Your task to perform on an android device: Show me productivity apps on the Play Store Image 0: 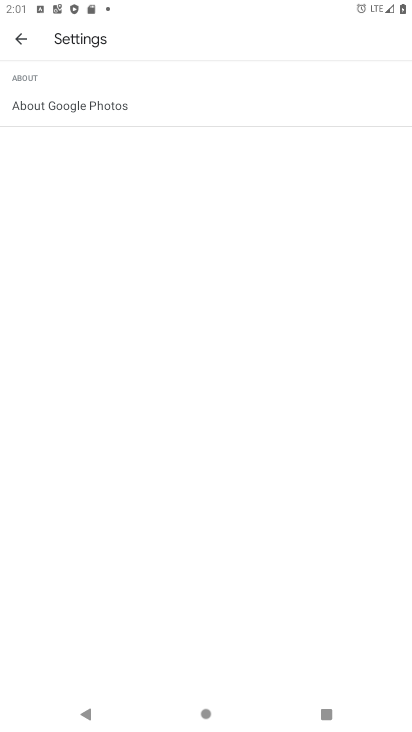
Step 0: press home button
Your task to perform on an android device: Show me productivity apps on the Play Store Image 1: 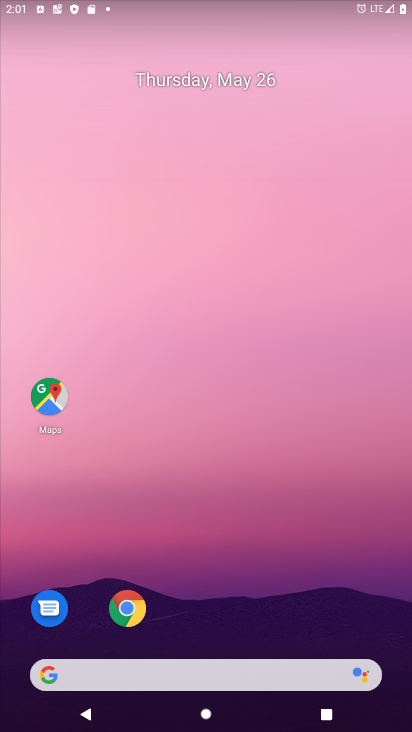
Step 1: drag from (357, 618) to (302, 113)
Your task to perform on an android device: Show me productivity apps on the Play Store Image 2: 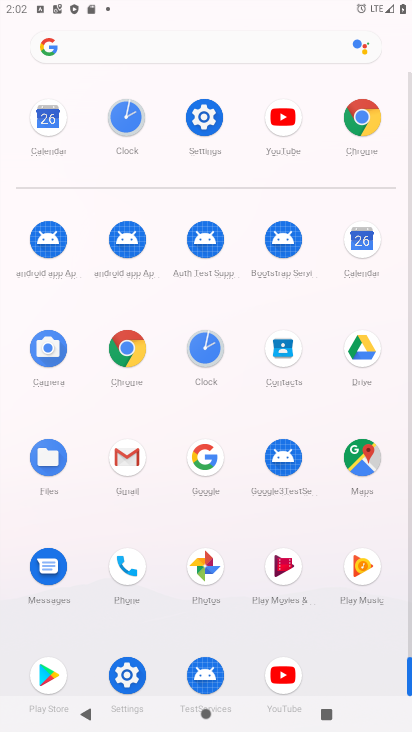
Step 2: click (47, 675)
Your task to perform on an android device: Show me productivity apps on the Play Store Image 3: 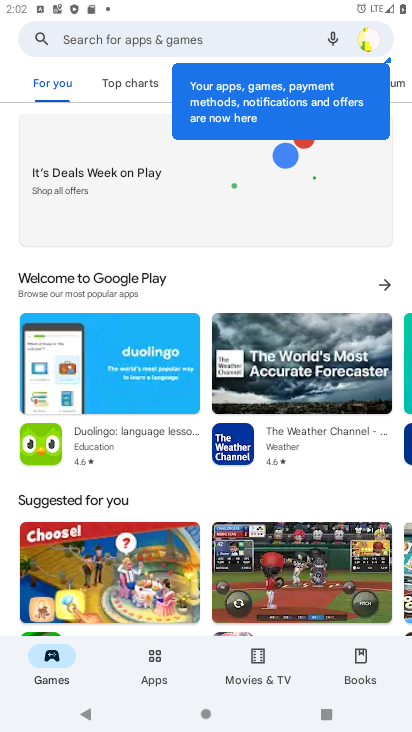
Step 3: click (154, 664)
Your task to perform on an android device: Show me productivity apps on the Play Store Image 4: 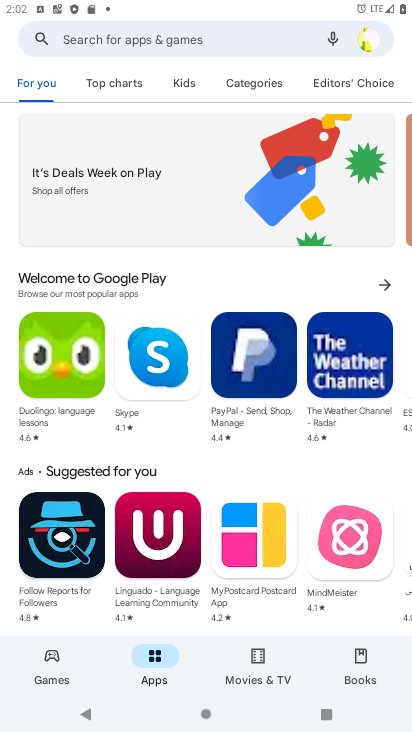
Step 4: click (241, 78)
Your task to perform on an android device: Show me productivity apps on the Play Store Image 5: 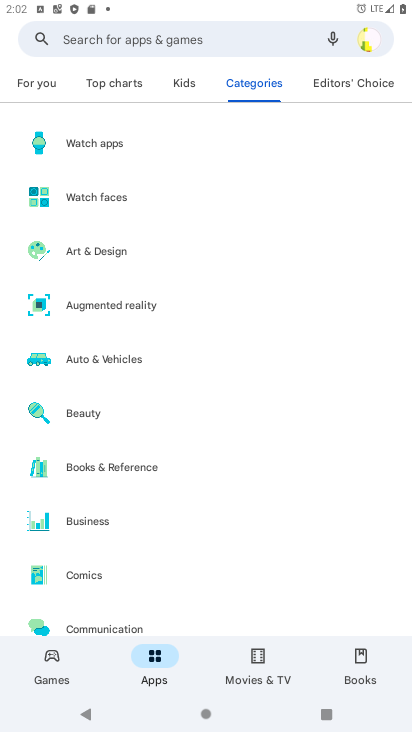
Step 5: drag from (207, 576) to (217, 427)
Your task to perform on an android device: Show me productivity apps on the Play Store Image 6: 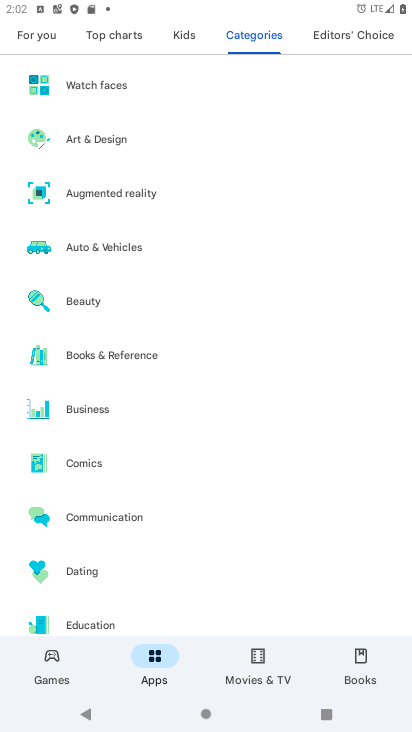
Step 6: drag from (204, 610) to (225, 82)
Your task to perform on an android device: Show me productivity apps on the Play Store Image 7: 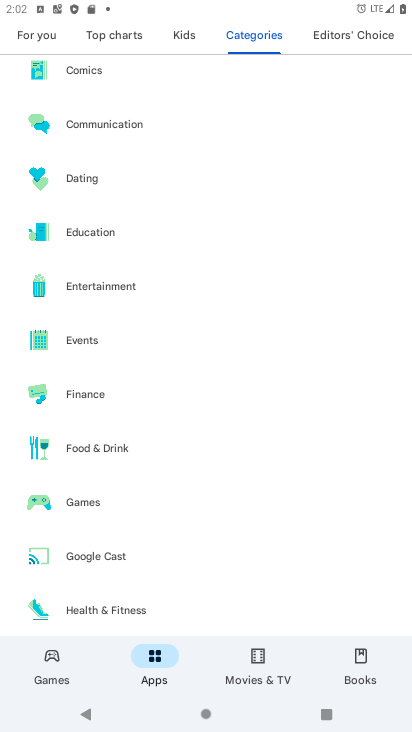
Step 7: drag from (187, 531) to (192, 193)
Your task to perform on an android device: Show me productivity apps on the Play Store Image 8: 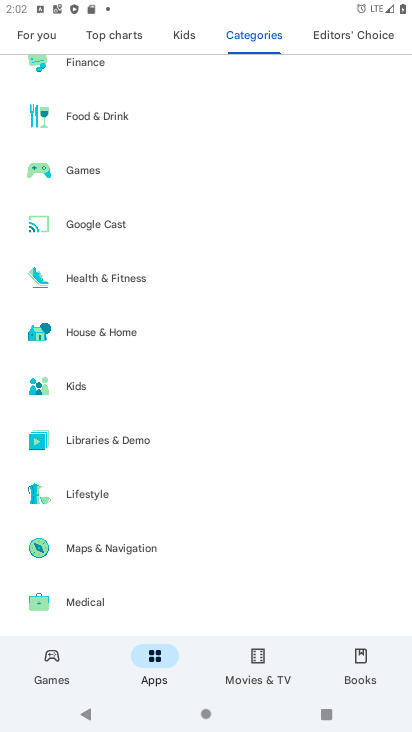
Step 8: drag from (185, 586) to (181, 204)
Your task to perform on an android device: Show me productivity apps on the Play Store Image 9: 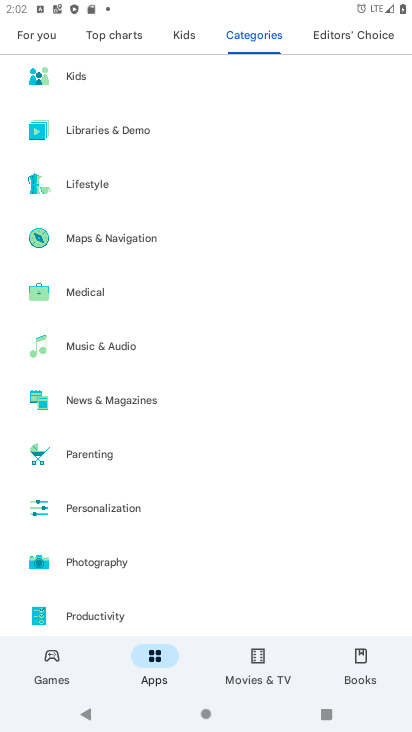
Step 9: click (90, 613)
Your task to perform on an android device: Show me productivity apps on the Play Store Image 10: 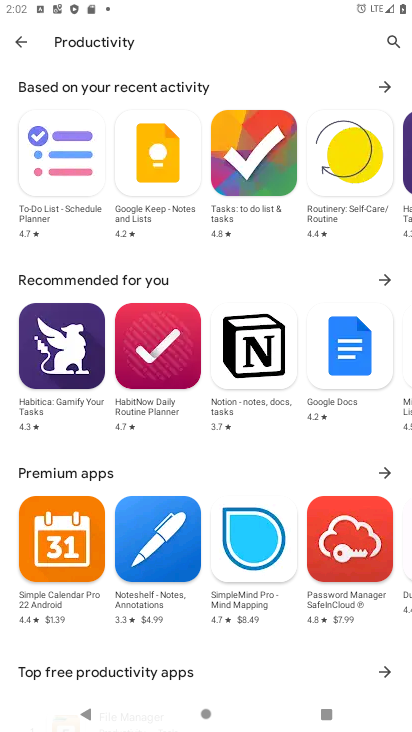
Step 10: drag from (318, 533) to (301, 277)
Your task to perform on an android device: Show me productivity apps on the Play Store Image 11: 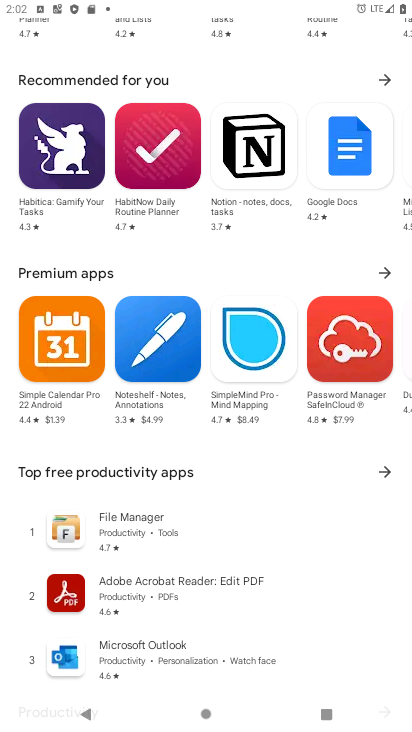
Step 11: click (382, 468)
Your task to perform on an android device: Show me productivity apps on the Play Store Image 12: 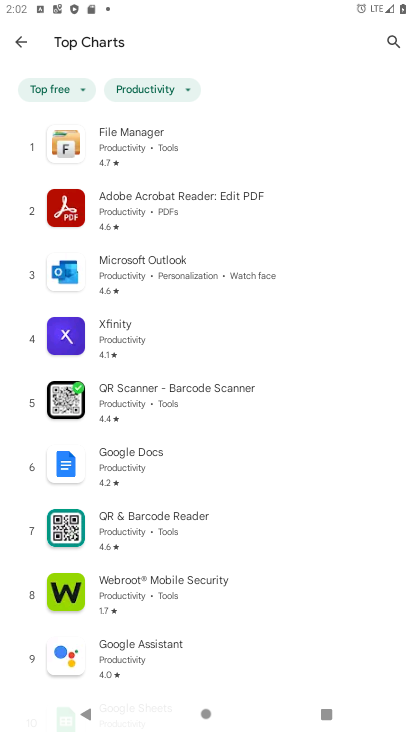
Step 12: task complete